Your task to perform on an android device: toggle notifications settings in the gmail app Image 0: 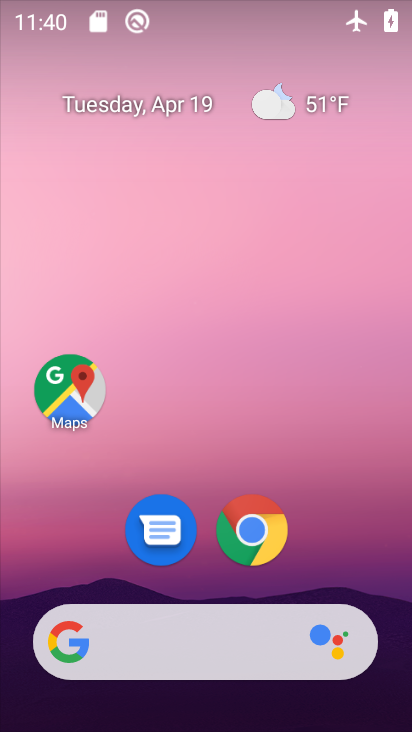
Step 0: drag from (179, 598) to (325, 192)
Your task to perform on an android device: toggle notifications settings in the gmail app Image 1: 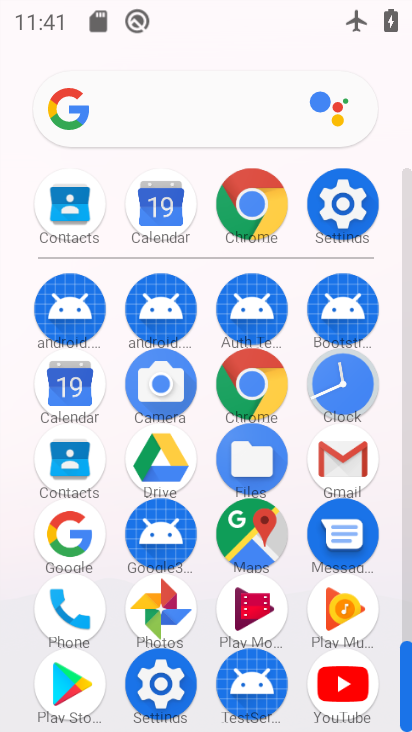
Step 1: click (345, 469)
Your task to perform on an android device: toggle notifications settings in the gmail app Image 2: 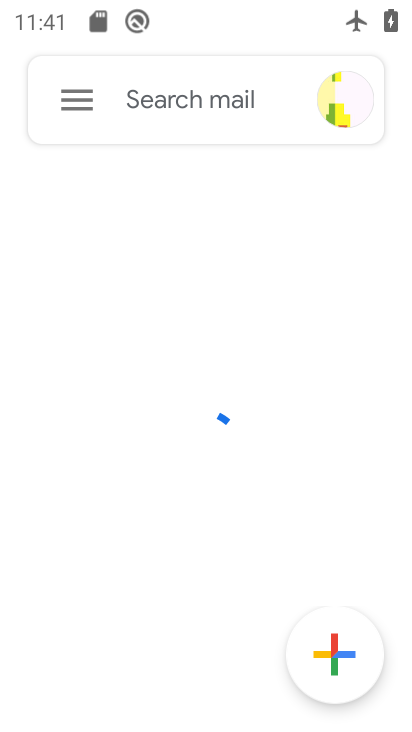
Step 2: click (84, 106)
Your task to perform on an android device: toggle notifications settings in the gmail app Image 3: 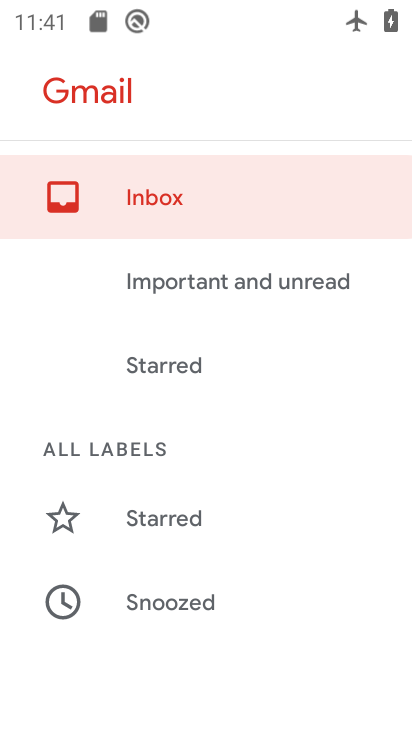
Step 3: drag from (144, 591) to (289, 268)
Your task to perform on an android device: toggle notifications settings in the gmail app Image 4: 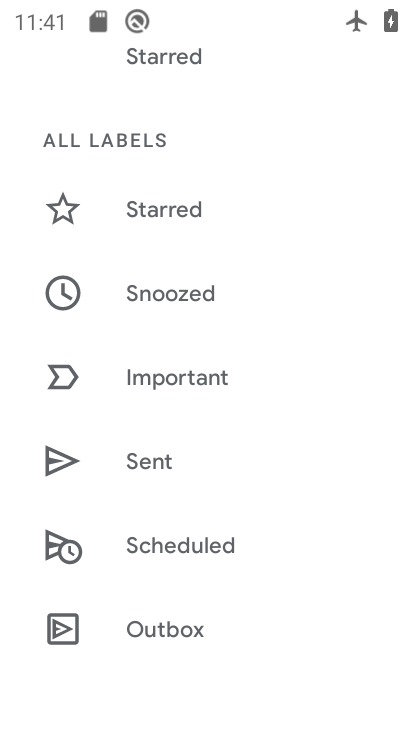
Step 4: drag from (173, 604) to (410, 165)
Your task to perform on an android device: toggle notifications settings in the gmail app Image 5: 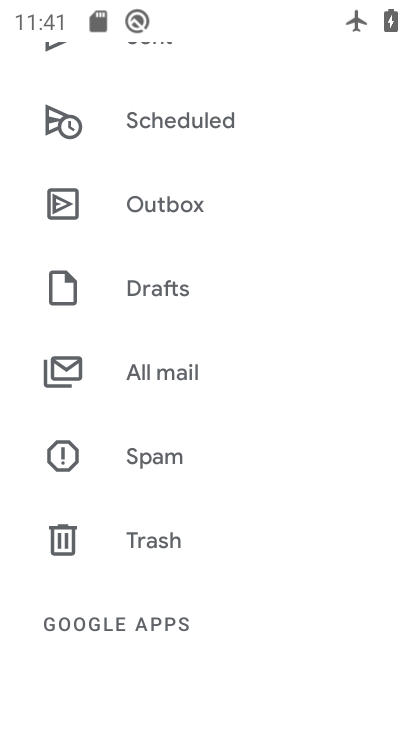
Step 5: drag from (208, 585) to (409, 108)
Your task to perform on an android device: toggle notifications settings in the gmail app Image 6: 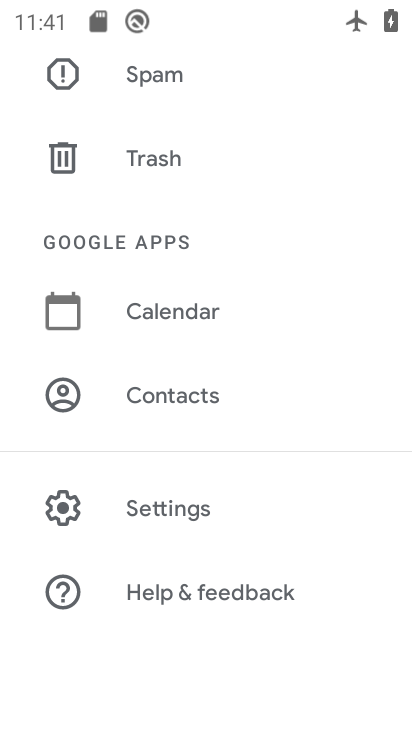
Step 6: click (170, 503)
Your task to perform on an android device: toggle notifications settings in the gmail app Image 7: 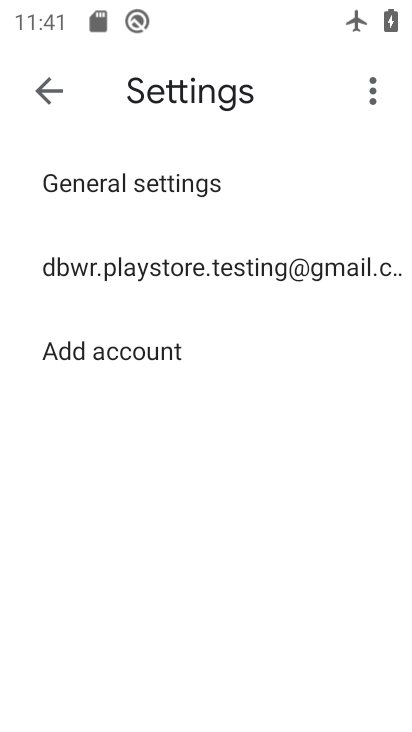
Step 7: click (259, 260)
Your task to perform on an android device: toggle notifications settings in the gmail app Image 8: 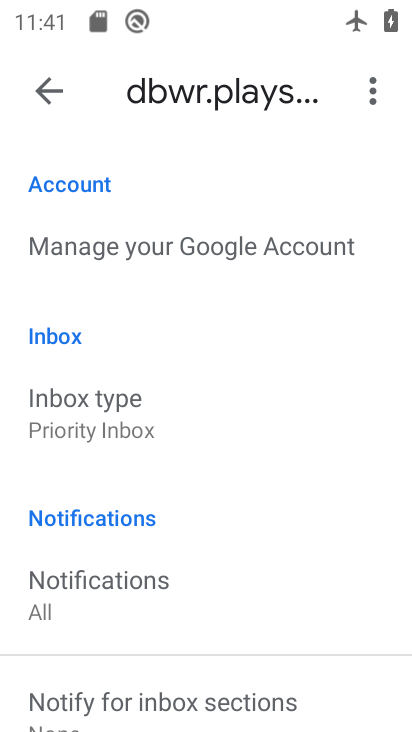
Step 8: click (94, 582)
Your task to perform on an android device: toggle notifications settings in the gmail app Image 9: 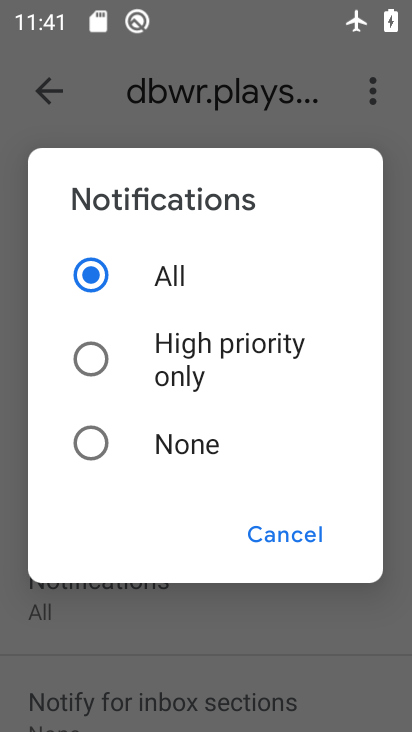
Step 9: click (97, 440)
Your task to perform on an android device: toggle notifications settings in the gmail app Image 10: 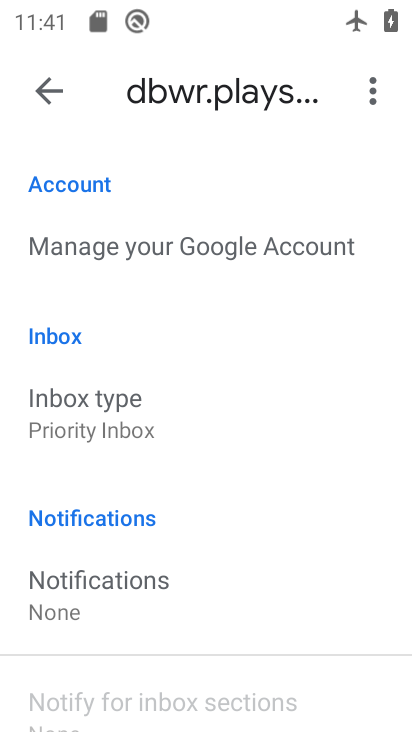
Step 10: task complete